Your task to perform on an android device: turn notification dots off Image 0: 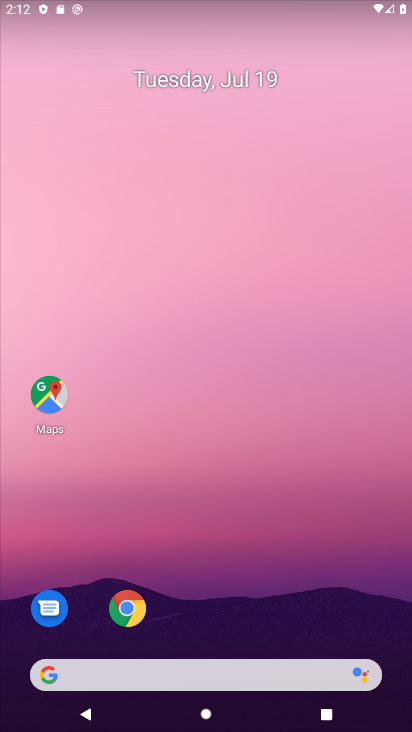
Step 0: drag from (321, 627) to (200, 0)
Your task to perform on an android device: turn notification dots off Image 1: 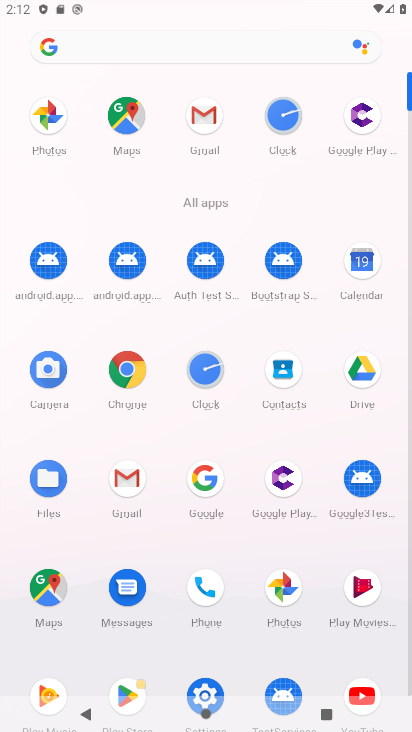
Step 1: click (205, 685)
Your task to perform on an android device: turn notification dots off Image 2: 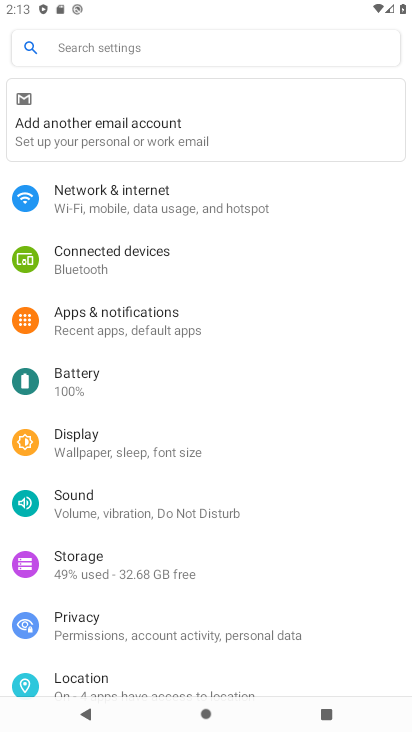
Step 2: click (158, 318)
Your task to perform on an android device: turn notification dots off Image 3: 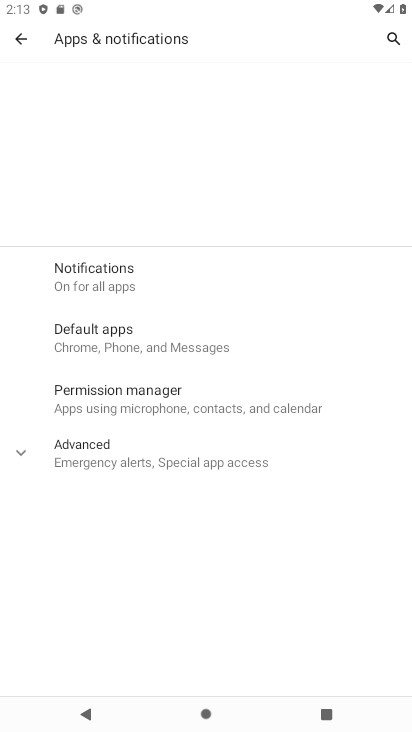
Step 3: click (154, 281)
Your task to perform on an android device: turn notification dots off Image 4: 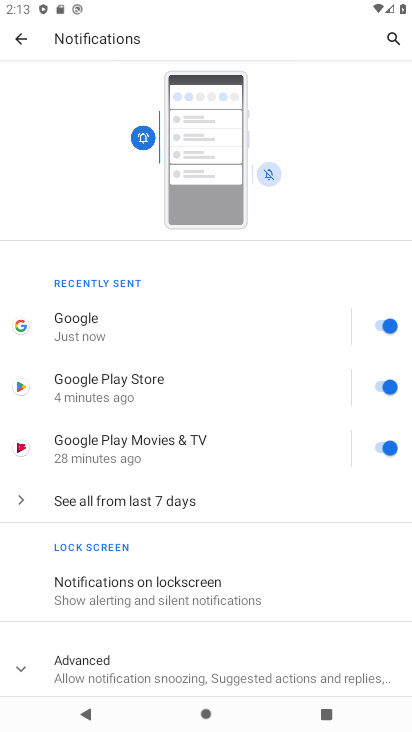
Step 4: click (232, 635)
Your task to perform on an android device: turn notification dots off Image 5: 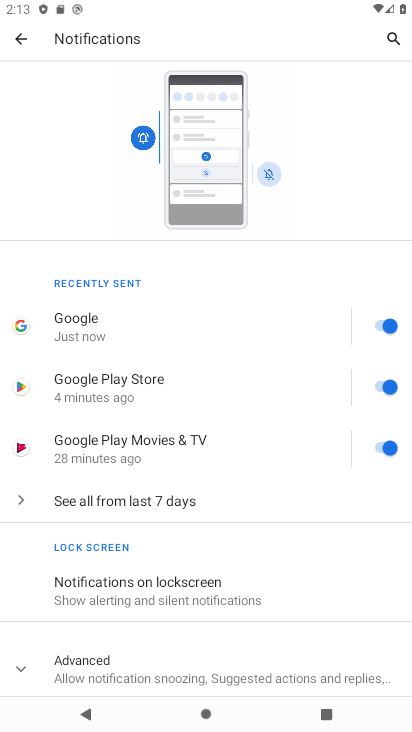
Step 5: click (229, 656)
Your task to perform on an android device: turn notification dots off Image 6: 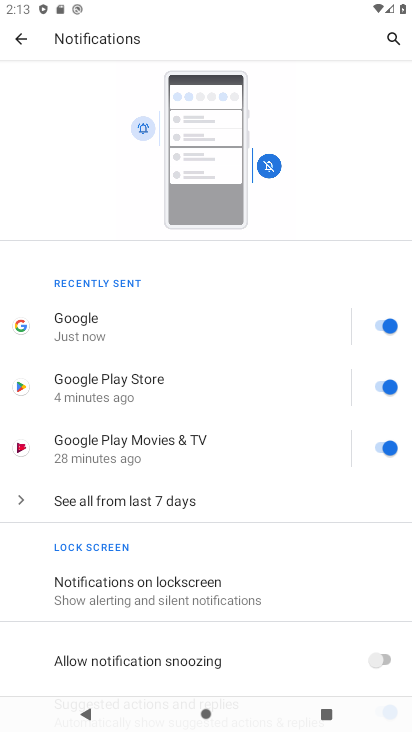
Step 6: drag from (275, 658) to (211, 488)
Your task to perform on an android device: turn notification dots off Image 7: 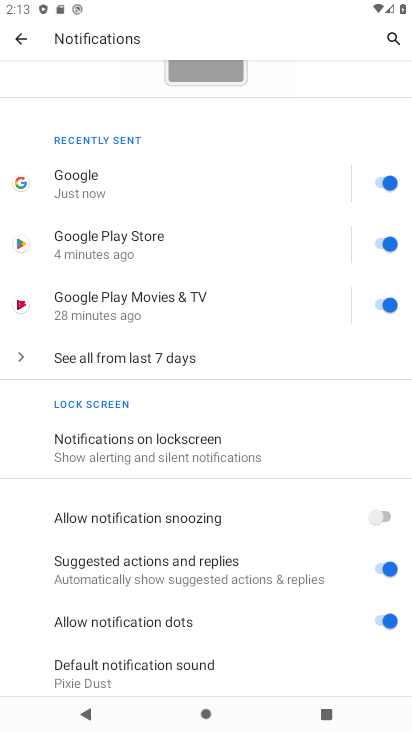
Step 7: click (395, 626)
Your task to perform on an android device: turn notification dots off Image 8: 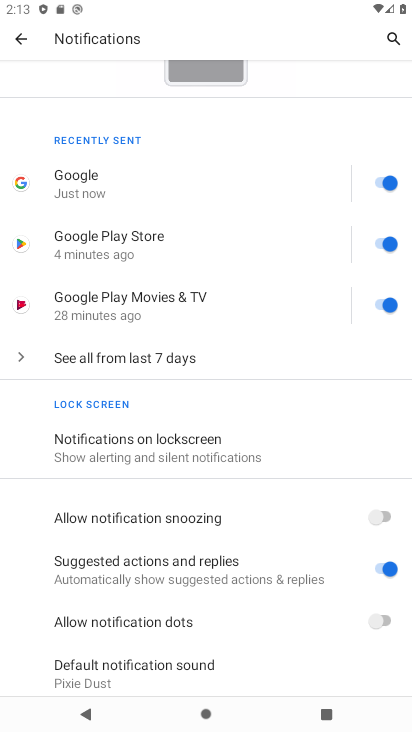
Step 8: task complete